Your task to perform on an android device: move an email to a new category in the gmail app Image 0: 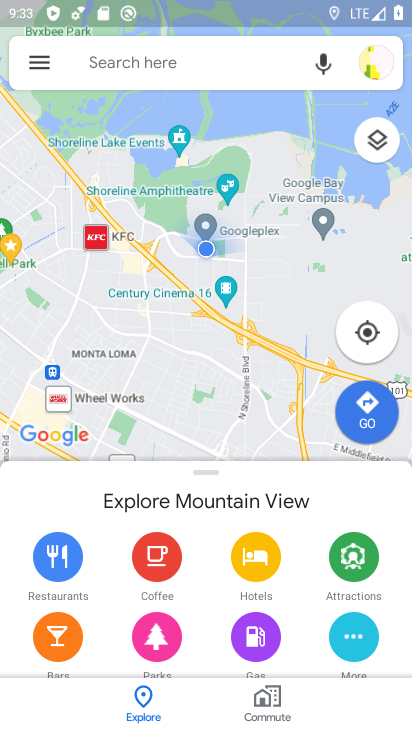
Step 0: press home button
Your task to perform on an android device: move an email to a new category in the gmail app Image 1: 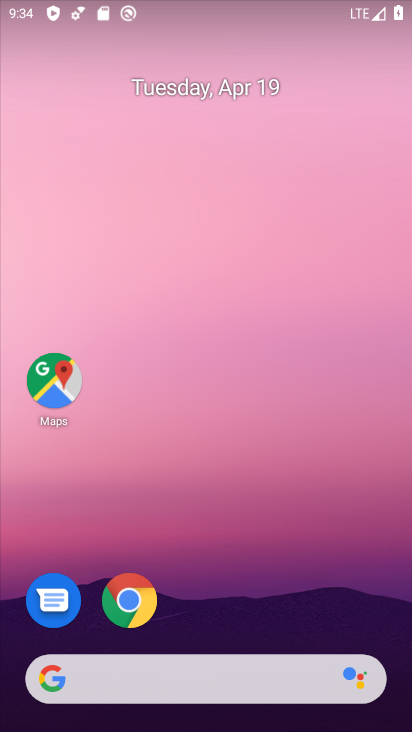
Step 1: drag from (382, 638) to (376, 42)
Your task to perform on an android device: move an email to a new category in the gmail app Image 2: 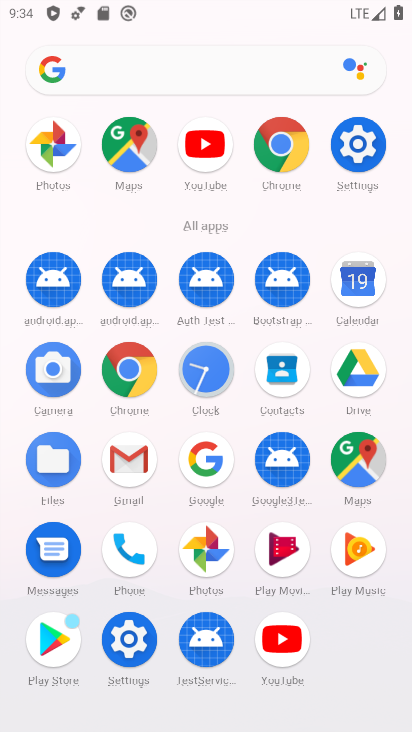
Step 2: click (128, 473)
Your task to perform on an android device: move an email to a new category in the gmail app Image 3: 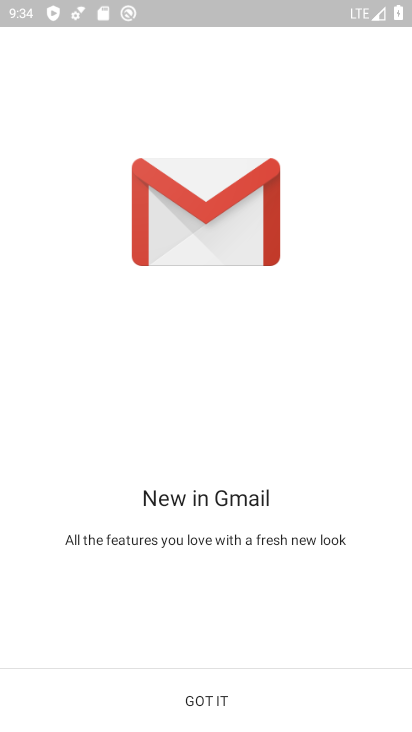
Step 3: click (205, 709)
Your task to perform on an android device: move an email to a new category in the gmail app Image 4: 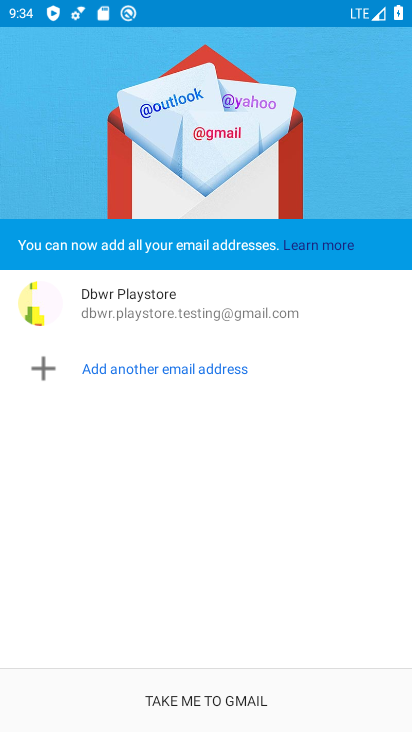
Step 4: click (200, 709)
Your task to perform on an android device: move an email to a new category in the gmail app Image 5: 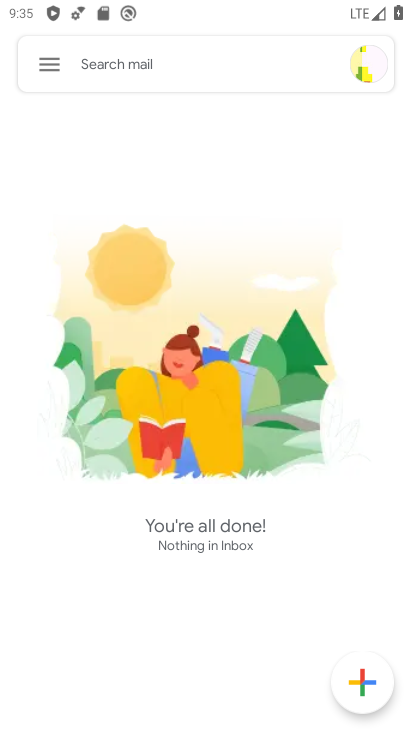
Step 5: task complete